Your task to perform on an android device: check out phone information Image 0: 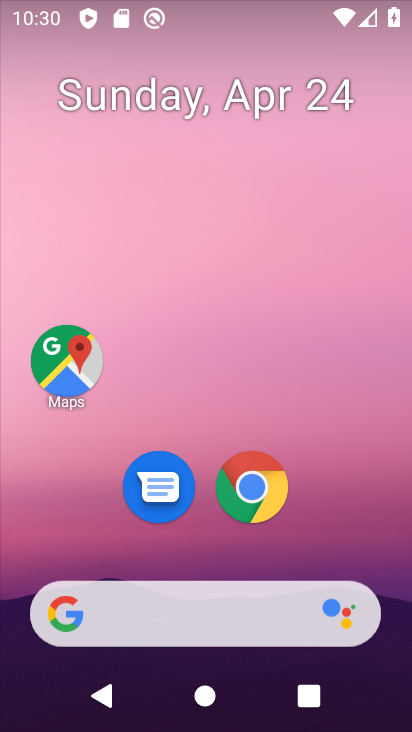
Step 0: drag from (202, 161) to (321, 27)
Your task to perform on an android device: check out phone information Image 1: 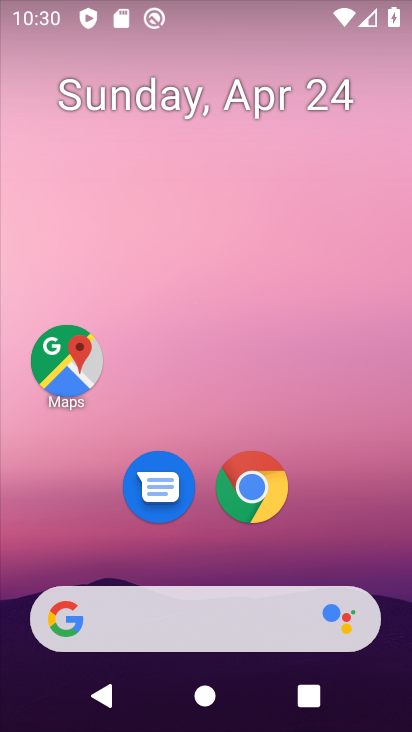
Step 1: drag from (187, 456) to (270, 28)
Your task to perform on an android device: check out phone information Image 2: 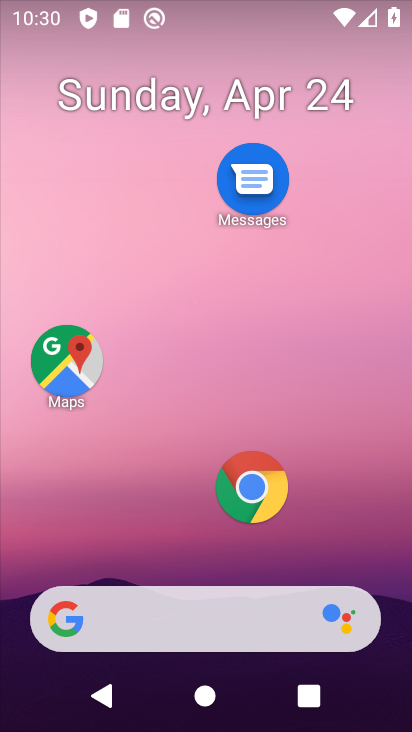
Step 2: drag from (238, 552) to (259, 171)
Your task to perform on an android device: check out phone information Image 3: 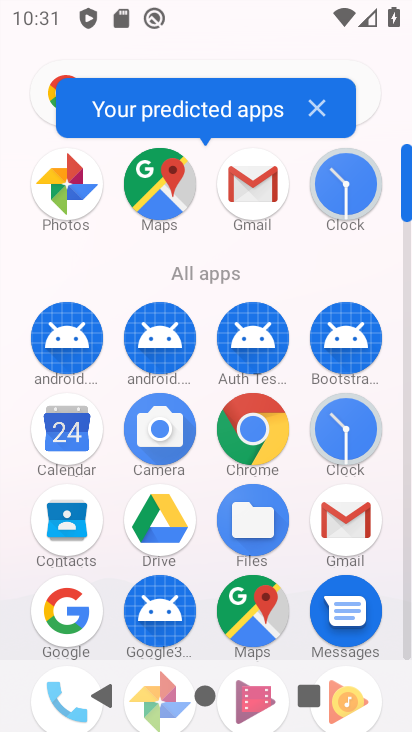
Step 3: drag from (190, 554) to (266, 192)
Your task to perform on an android device: check out phone information Image 4: 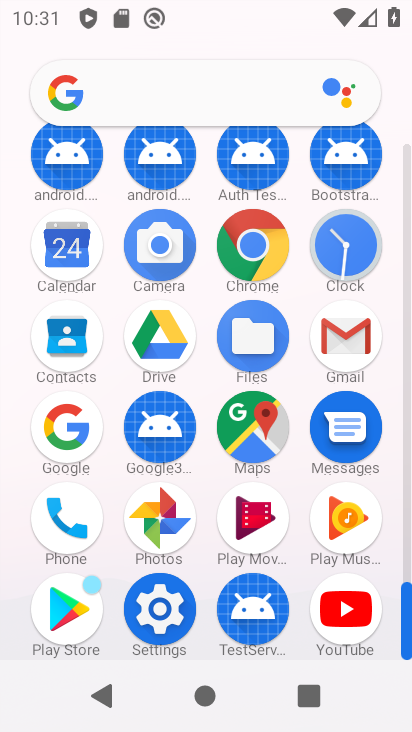
Step 4: click (172, 600)
Your task to perform on an android device: check out phone information Image 5: 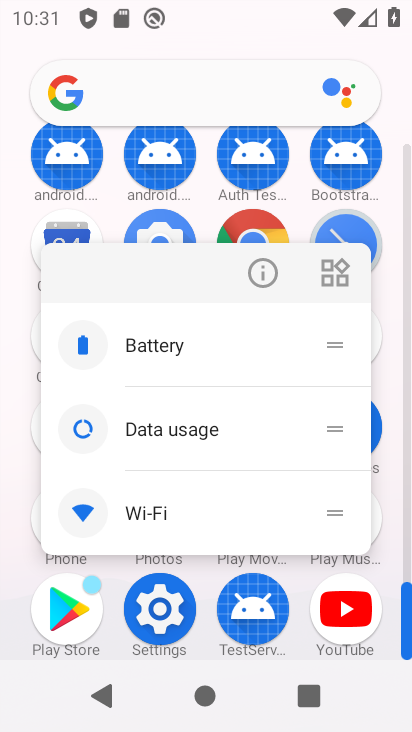
Step 5: click (175, 608)
Your task to perform on an android device: check out phone information Image 6: 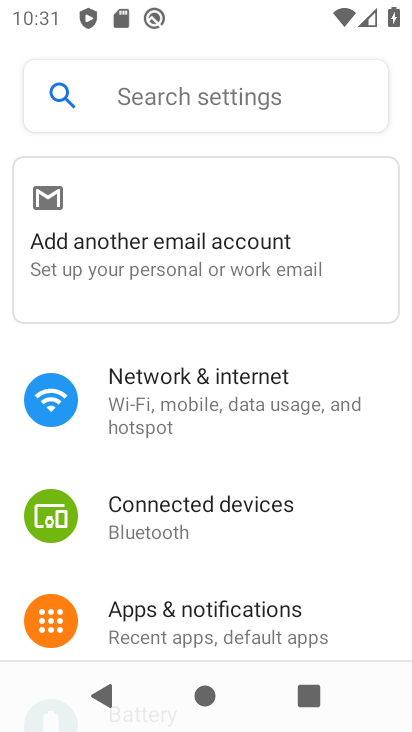
Step 6: drag from (211, 555) to (284, 35)
Your task to perform on an android device: check out phone information Image 7: 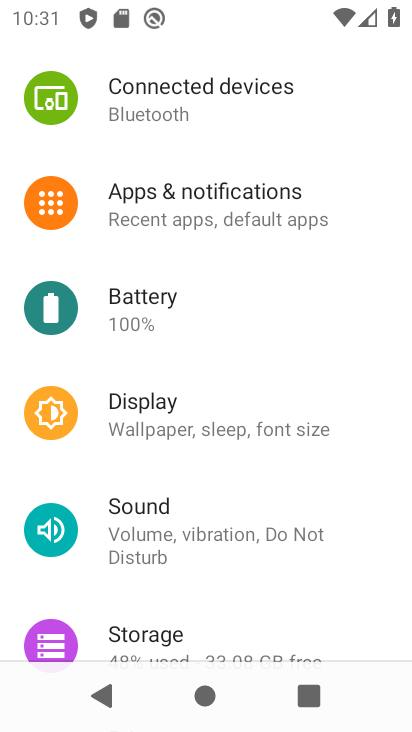
Step 7: drag from (158, 554) to (335, 3)
Your task to perform on an android device: check out phone information Image 8: 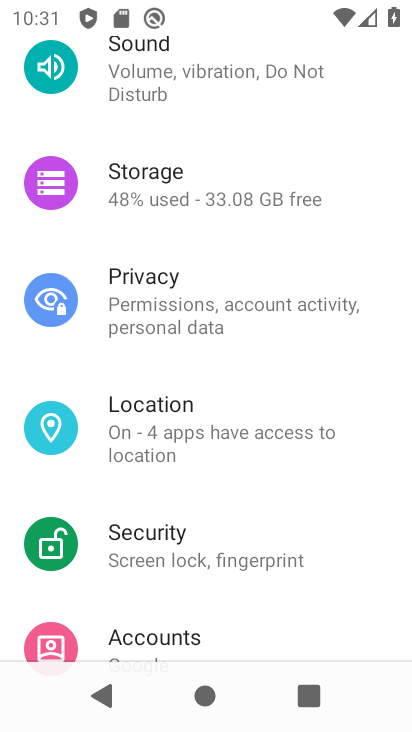
Step 8: drag from (170, 504) to (313, 0)
Your task to perform on an android device: check out phone information Image 9: 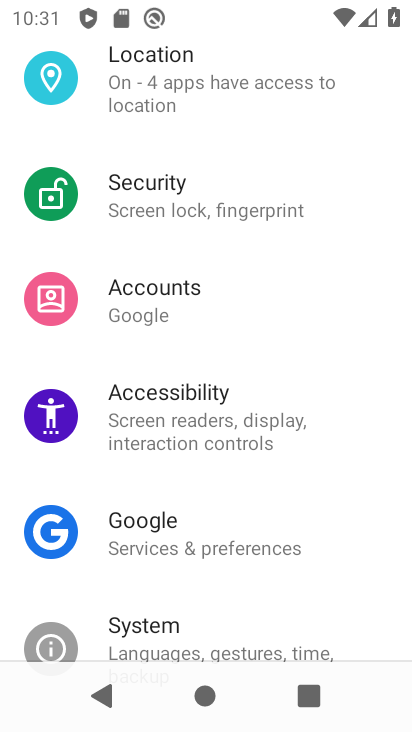
Step 9: drag from (165, 585) to (296, 100)
Your task to perform on an android device: check out phone information Image 10: 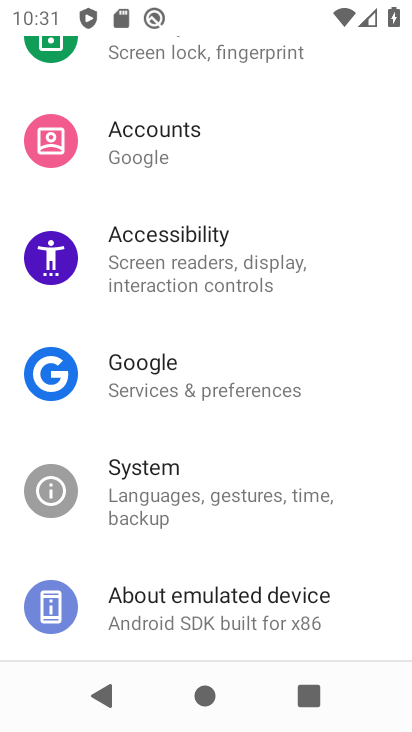
Step 10: click (157, 605)
Your task to perform on an android device: check out phone information Image 11: 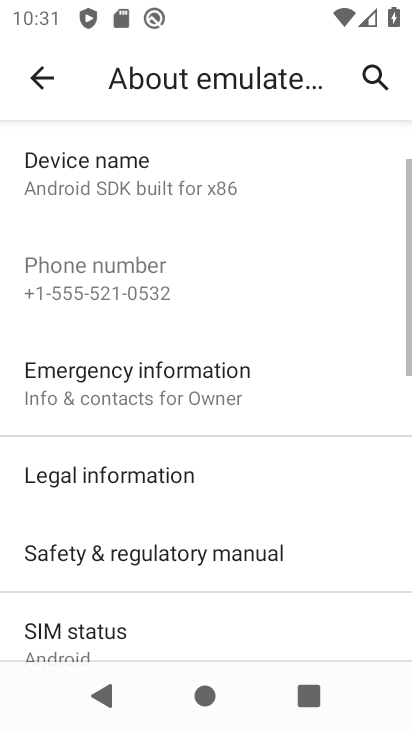
Step 11: task complete